Your task to perform on an android device: Open Amazon Image 0: 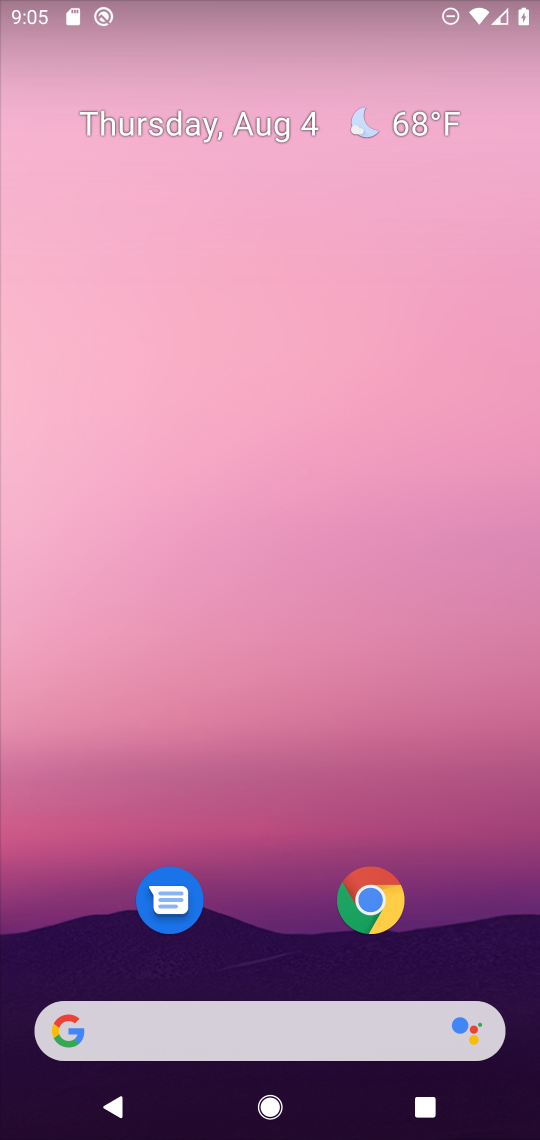
Step 0: click (365, 899)
Your task to perform on an android device: Open Amazon Image 1: 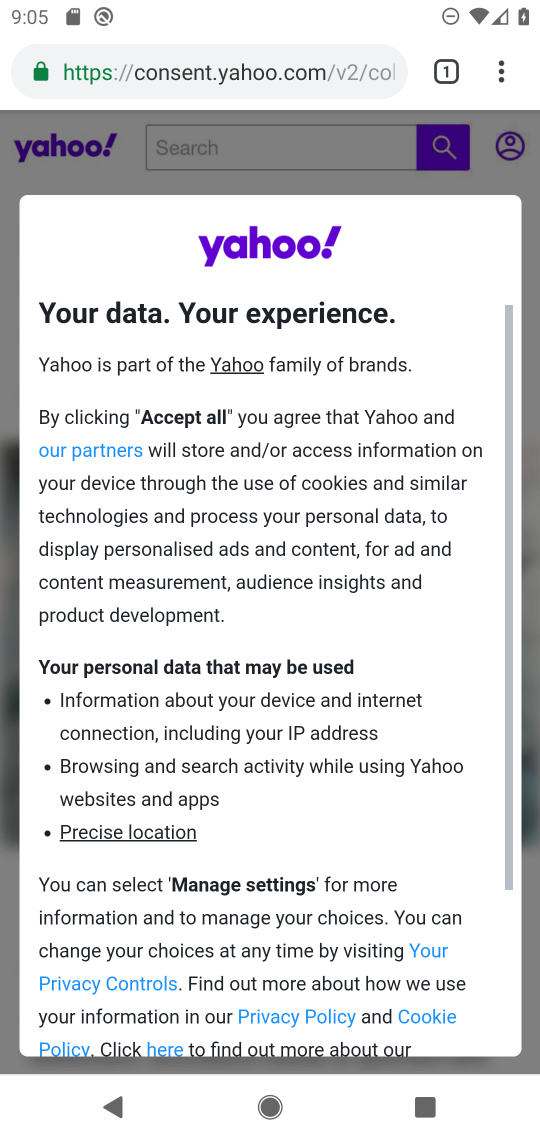
Step 1: click (284, 73)
Your task to perform on an android device: Open Amazon Image 2: 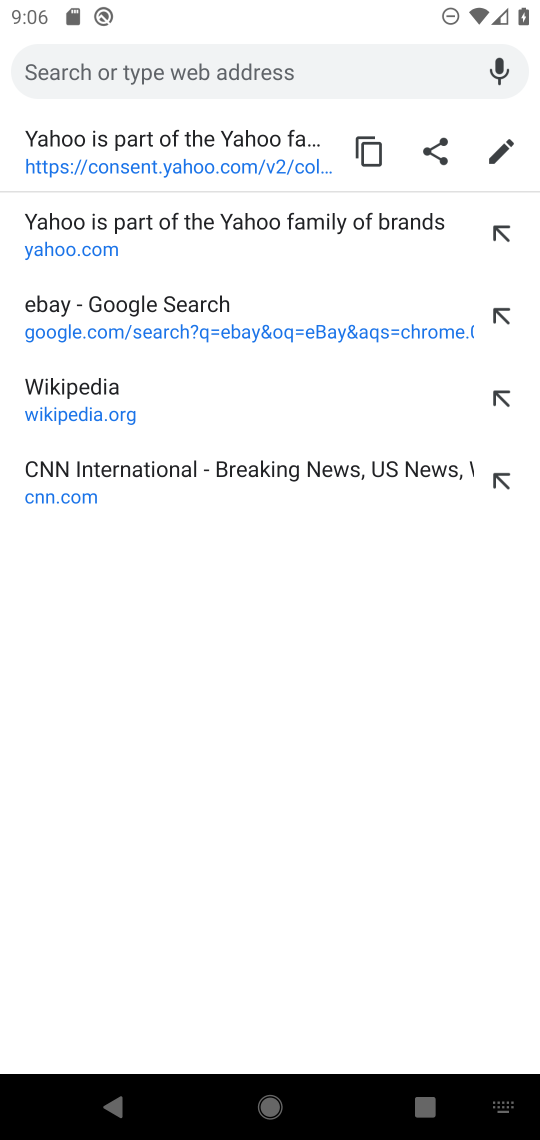
Step 2: type "www.amazon.com"
Your task to perform on an android device: Open Amazon Image 3: 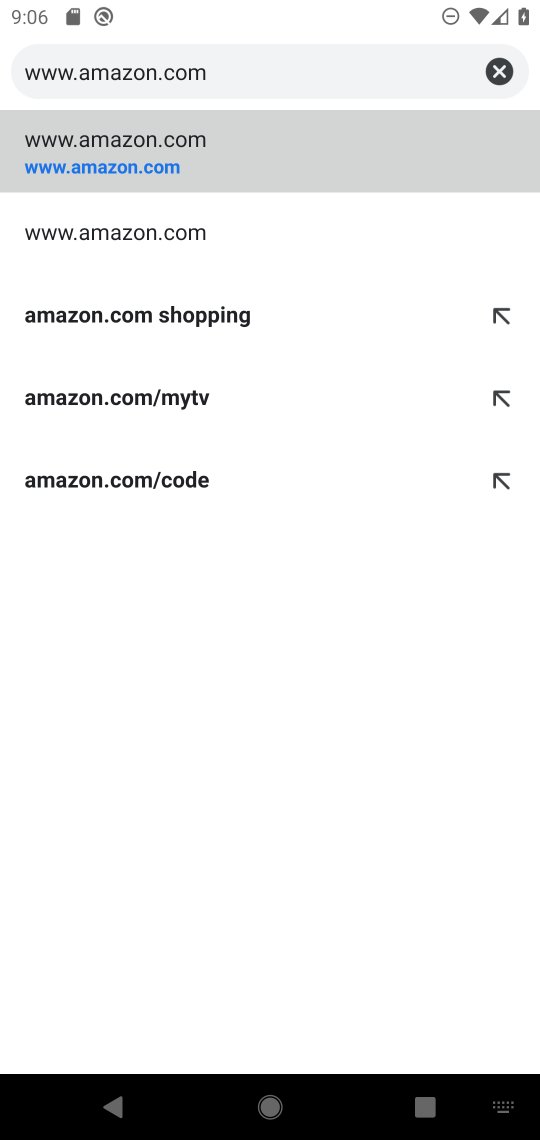
Step 3: click (149, 151)
Your task to perform on an android device: Open Amazon Image 4: 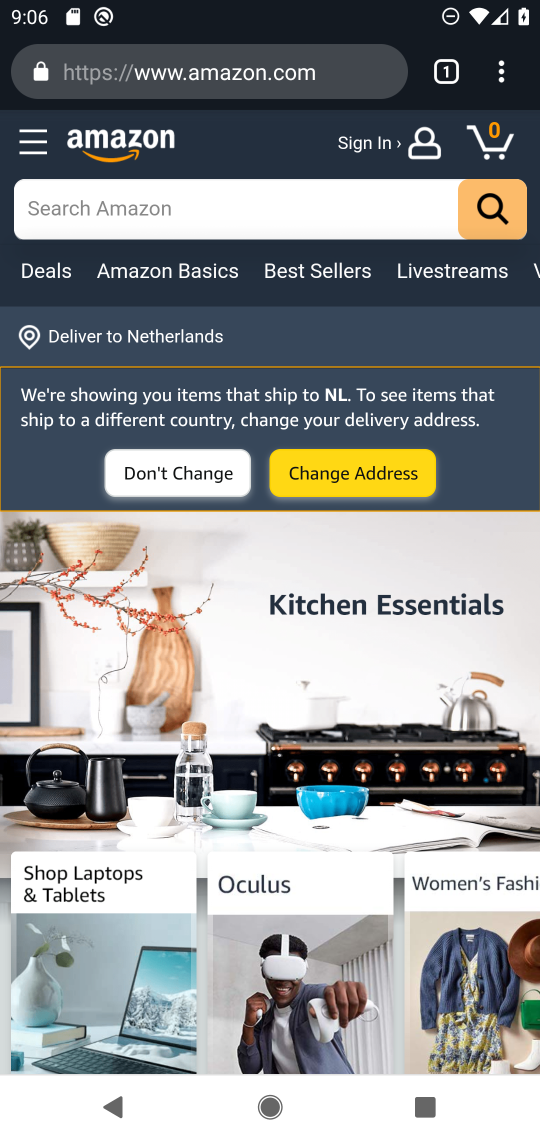
Step 4: task complete